Your task to perform on an android device: toggle notification dots Image 0: 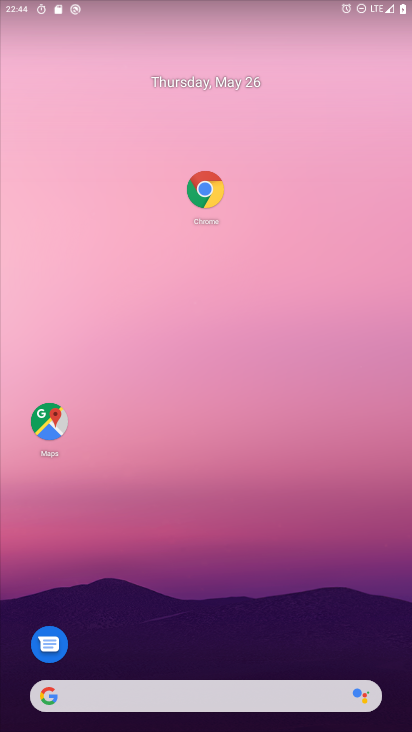
Step 0: drag from (205, 577) to (174, 14)
Your task to perform on an android device: toggle notification dots Image 1: 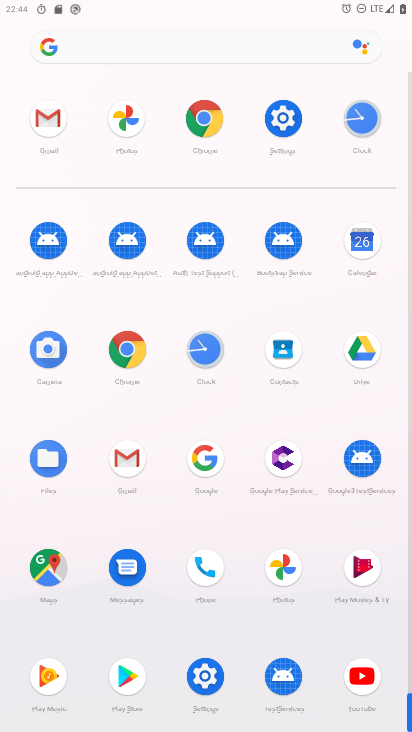
Step 1: click (269, 111)
Your task to perform on an android device: toggle notification dots Image 2: 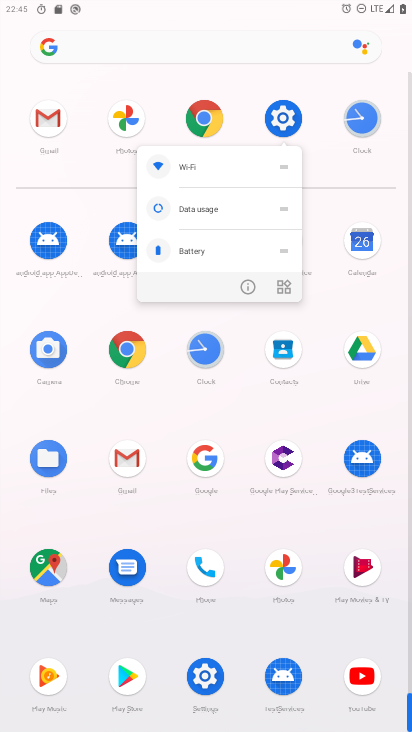
Step 2: click (232, 297)
Your task to perform on an android device: toggle notification dots Image 3: 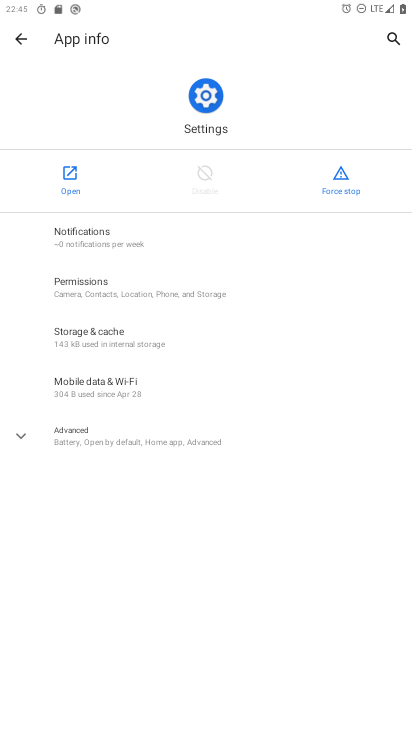
Step 3: click (64, 194)
Your task to perform on an android device: toggle notification dots Image 4: 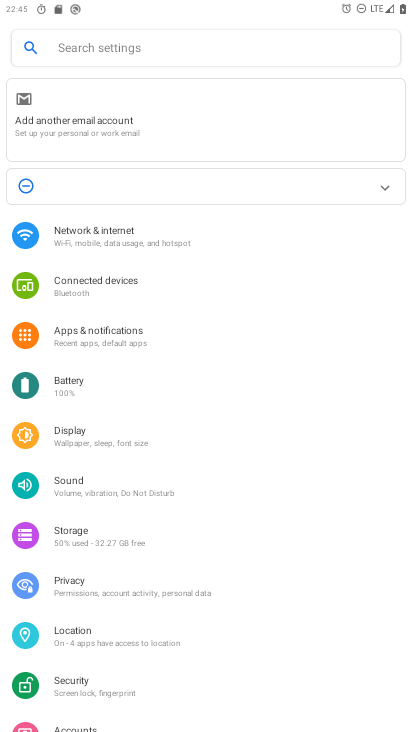
Step 4: click (144, 323)
Your task to perform on an android device: toggle notification dots Image 5: 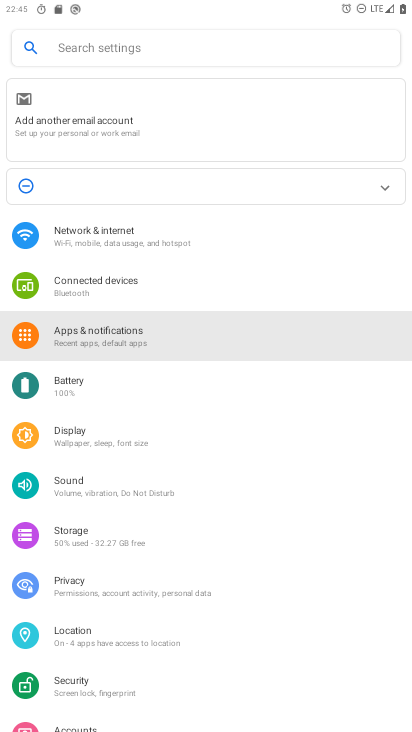
Step 5: click (144, 323)
Your task to perform on an android device: toggle notification dots Image 6: 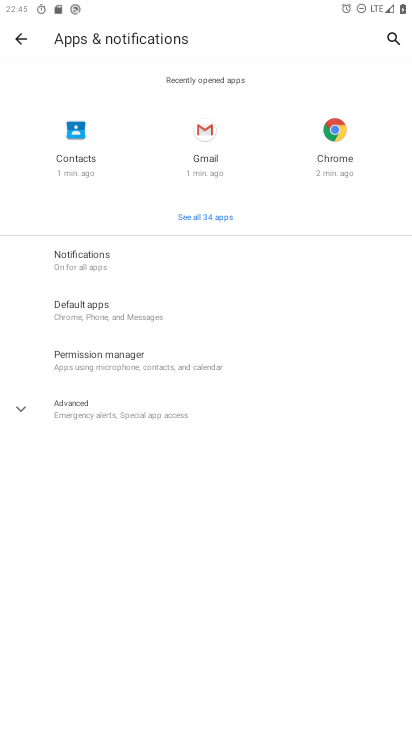
Step 6: click (113, 268)
Your task to perform on an android device: toggle notification dots Image 7: 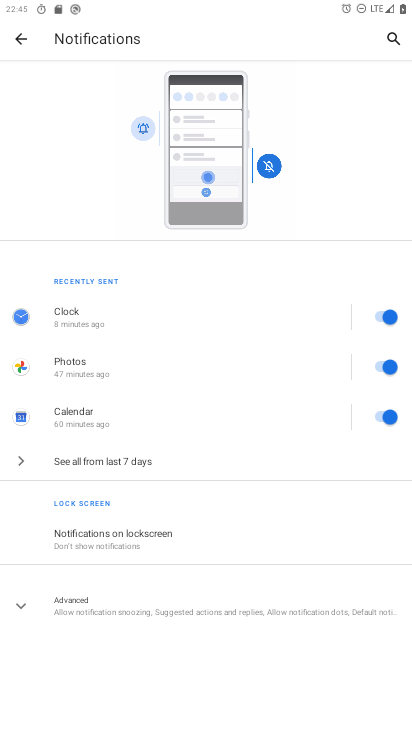
Step 7: click (146, 611)
Your task to perform on an android device: toggle notification dots Image 8: 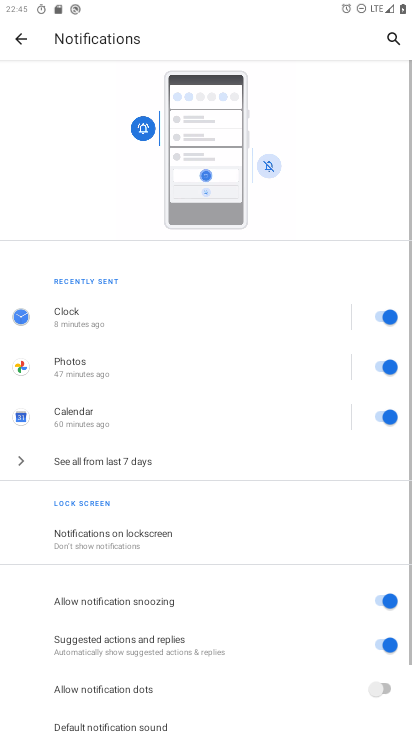
Step 8: drag from (166, 542) to (209, 165)
Your task to perform on an android device: toggle notification dots Image 9: 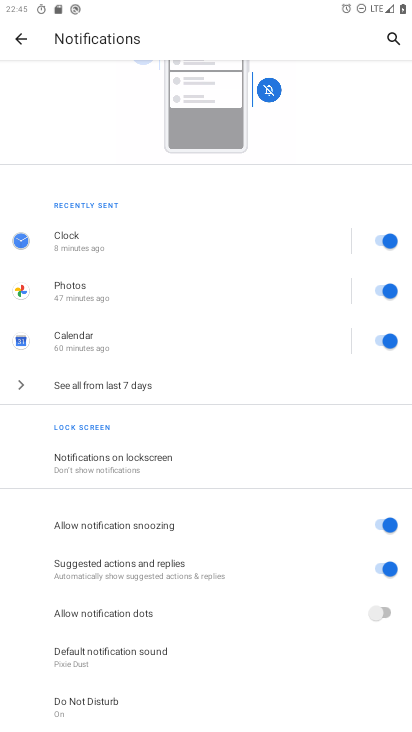
Step 9: drag from (182, 592) to (181, 349)
Your task to perform on an android device: toggle notification dots Image 10: 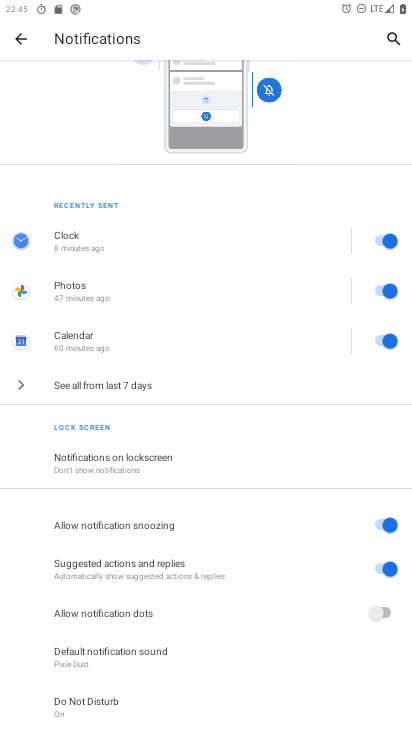
Step 10: click (382, 620)
Your task to perform on an android device: toggle notification dots Image 11: 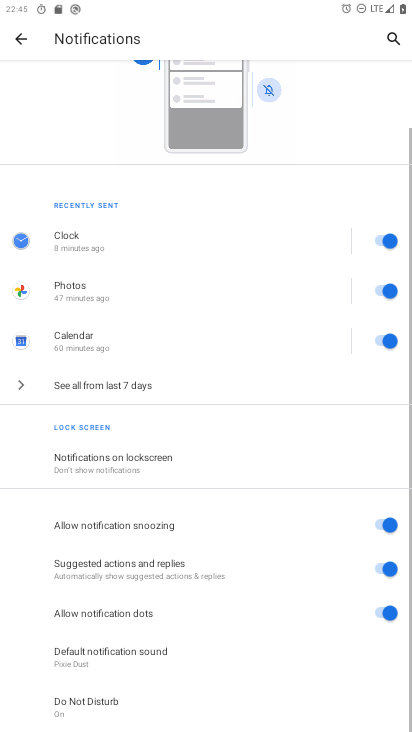
Step 11: task complete